Your task to perform on an android device: Open calendar and show me the second week of next month Image 0: 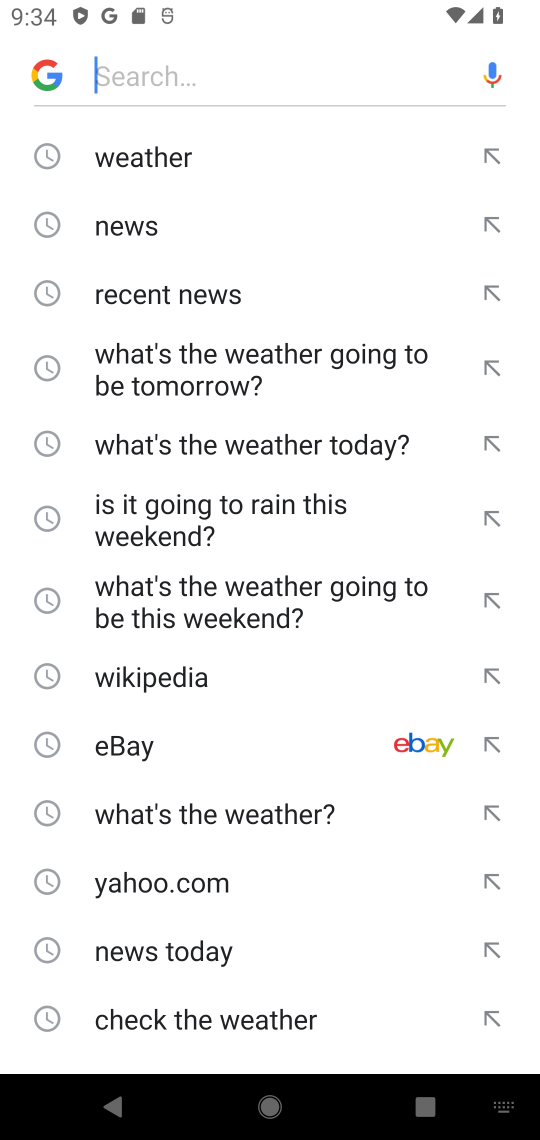
Step 0: press home button
Your task to perform on an android device: Open calendar and show me the second week of next month Image 1: 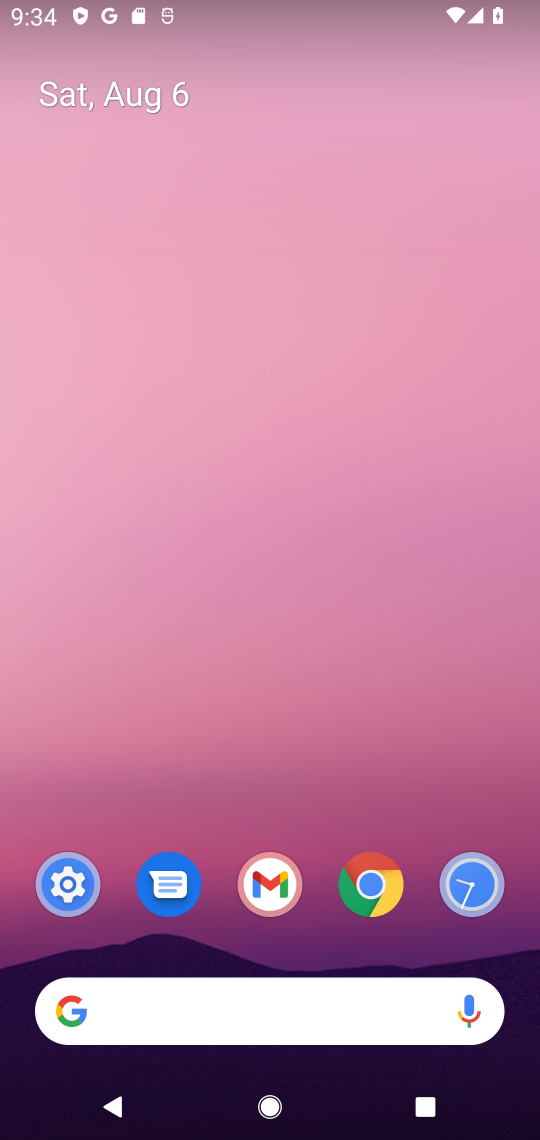
Step 1: drag from (410, 940) to (387, 63)
Your task to perform on an android device: Open calendar and show me the second week of next month Image 2: 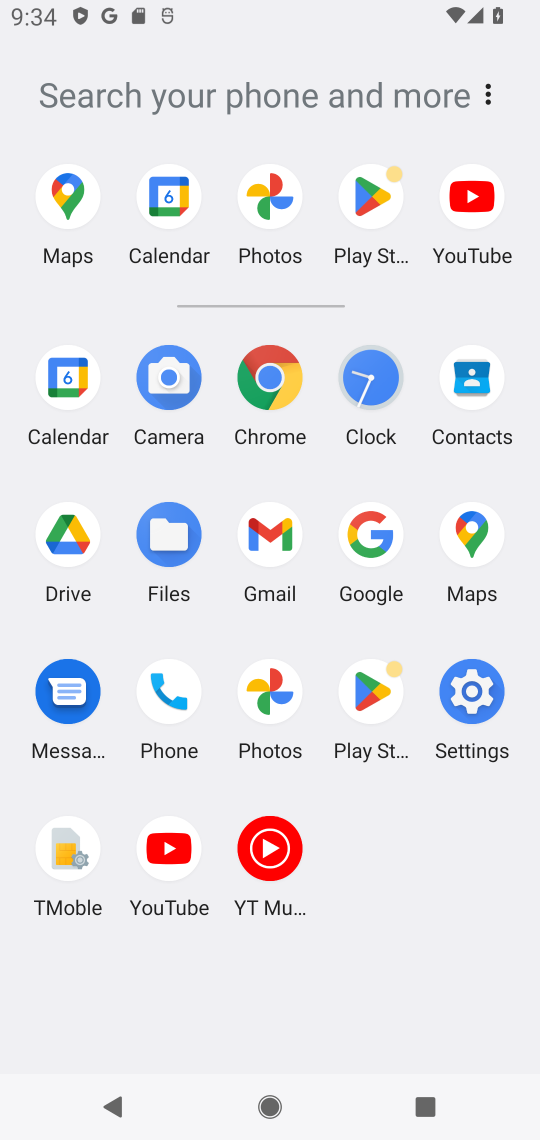
Step 2: click (67, 377)
Your task to perform on an android device: Open calendar and show me the second week of next month Image 3: 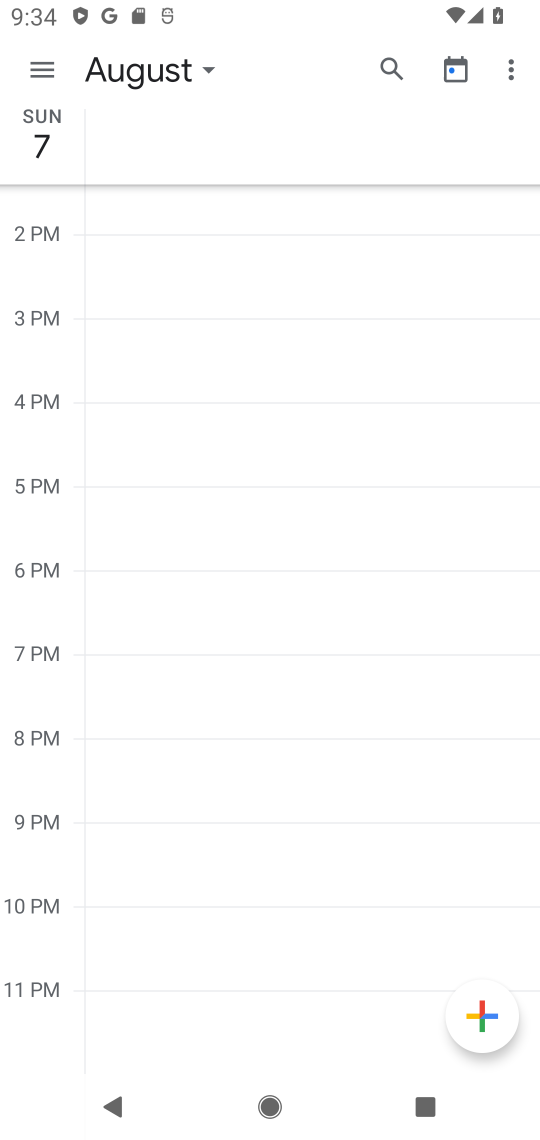
Step 3: click (35, 64)
Your task to perform on an android device: Open calendar and show me the second week of next month Image 4: 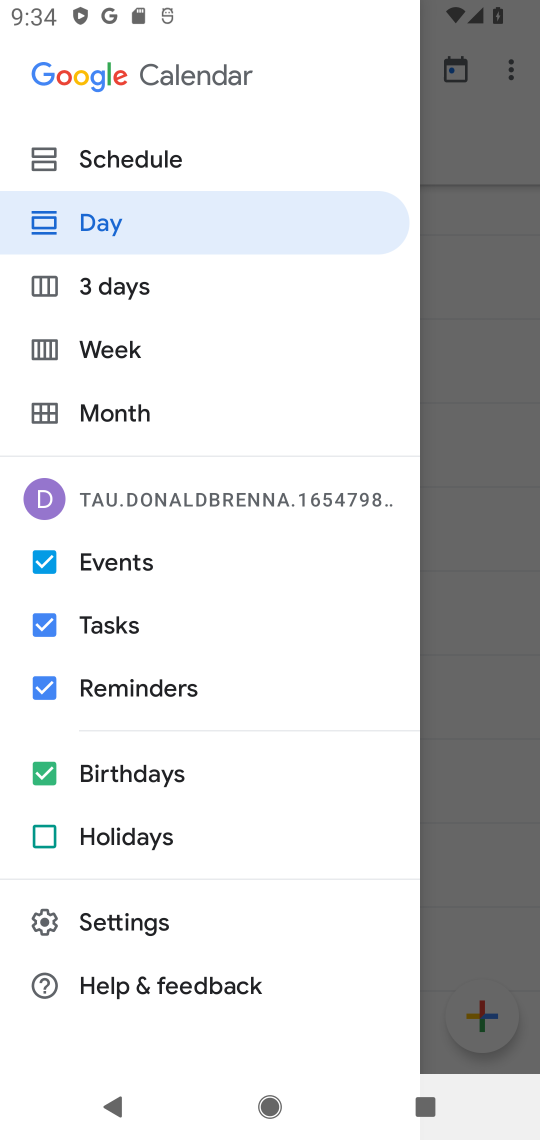
Step 4: click (106, 351)
Your task to perform on an android device: Open calendar and show me the second week of next month Image 5: 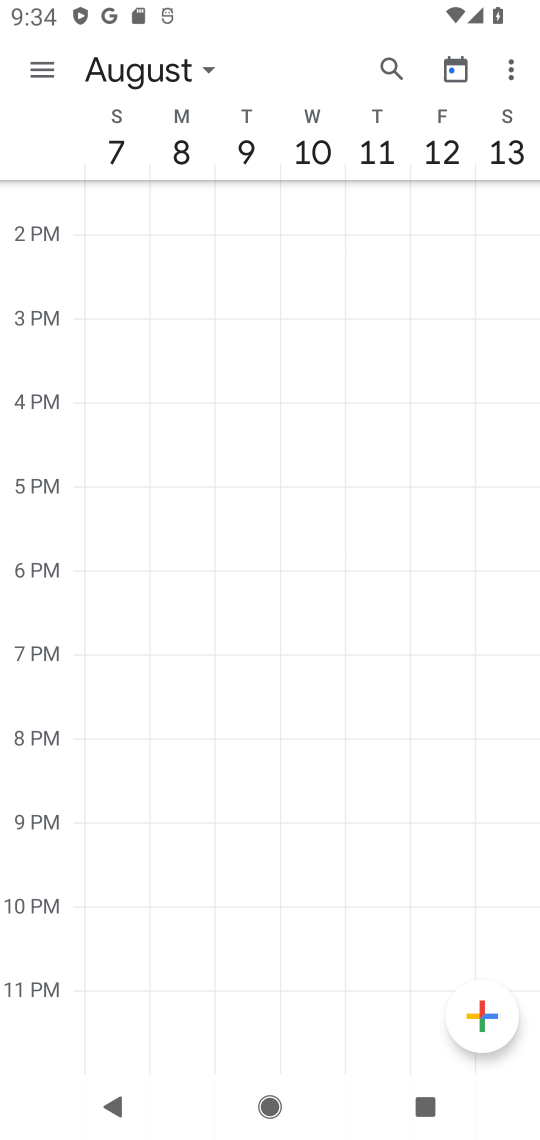
Step 5: click (209, 68)
Your task to perform on an android device: Open calendar and show me the second week of next month Image 6: 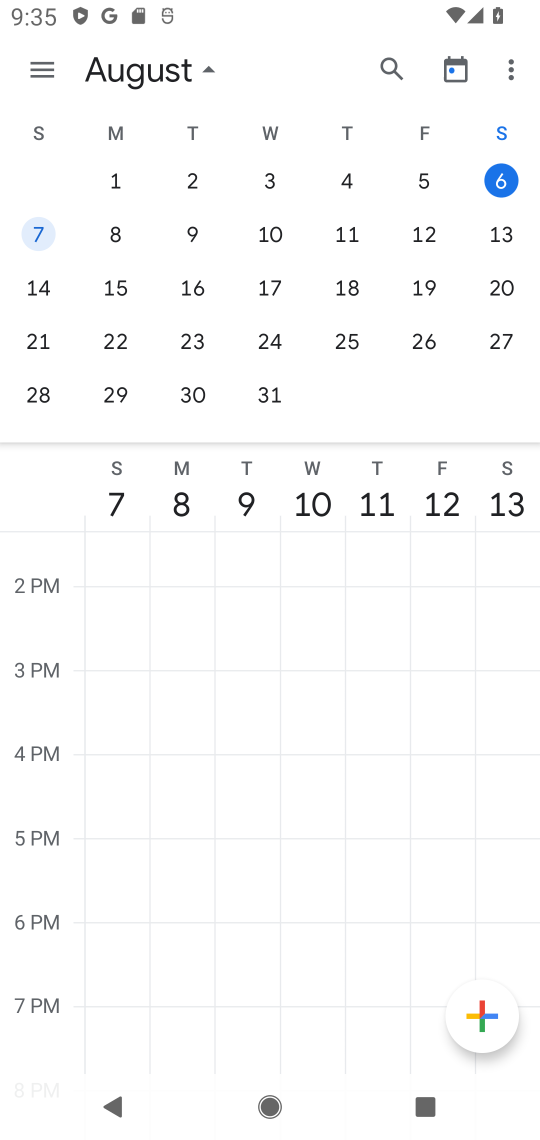
Step 6: drag from (521, 293) to (7, 276)
Your task to perform on an android device: Open calendar and show me the second week of next month Image 7: 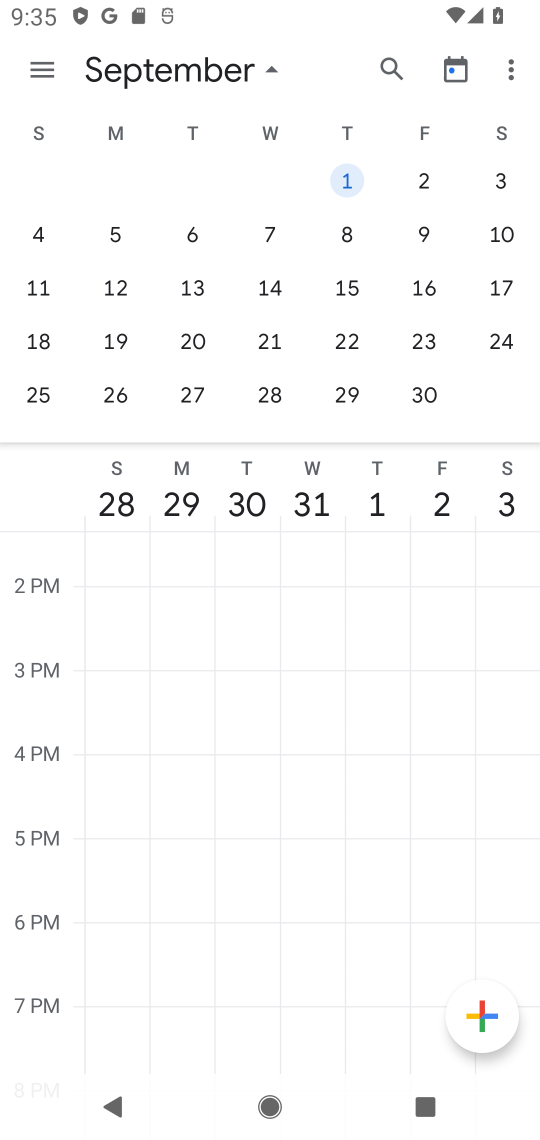
Step 7: click (34, 287)
Your task to perform on an android device: Open calendar and show me the second week of next month Image 8: 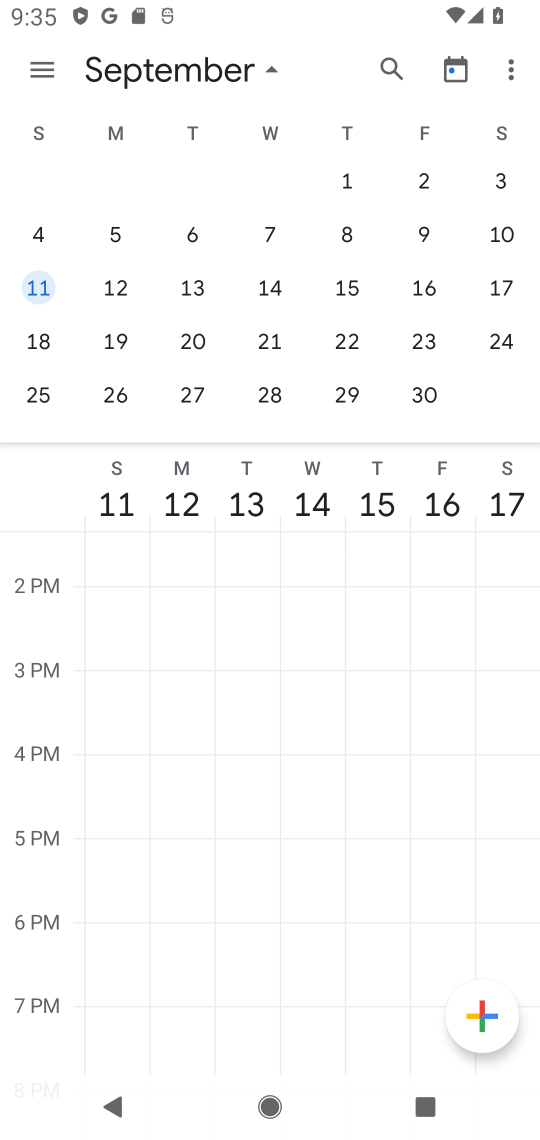
Step 8: task complete